Your task to perform on an android device: set an alarm Image 0: 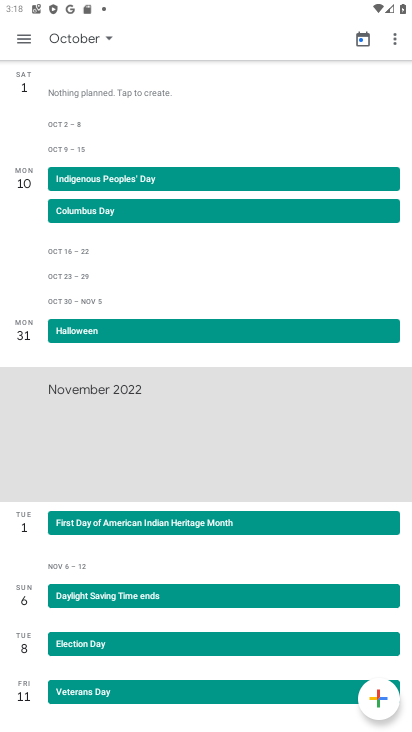
Step 0: press home button
Your task to perform on an android device: set an alarm Image 1: 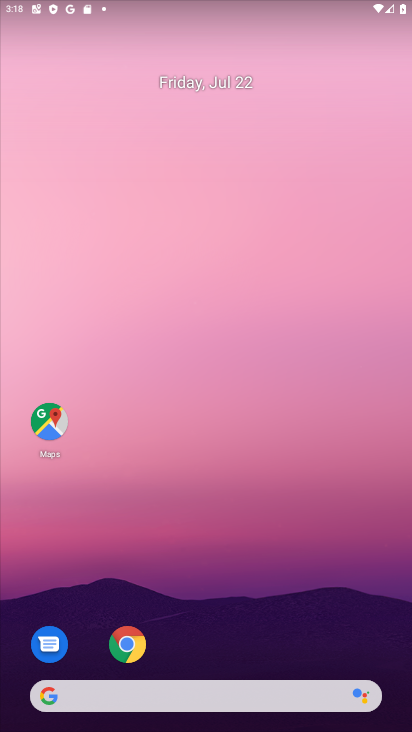
Step 1: drag from (343, 541) to (339, 123)
Your task to perform on an android device: set an alarm Image 2: 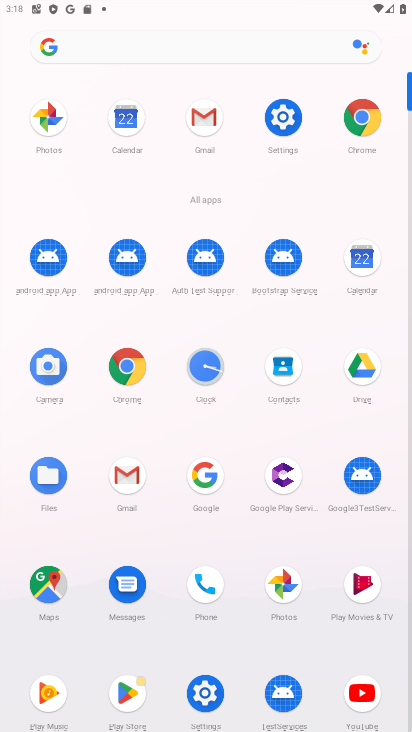
Step 2: click (205, 374)
Your task to perform on an android device: set an alarm Image 3: 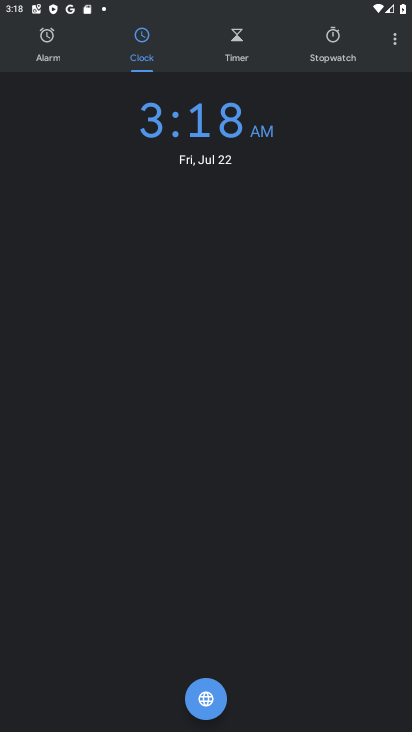
Step 3: click (42, 40)
Your task to perform on an android device: set an alarm Image 4: 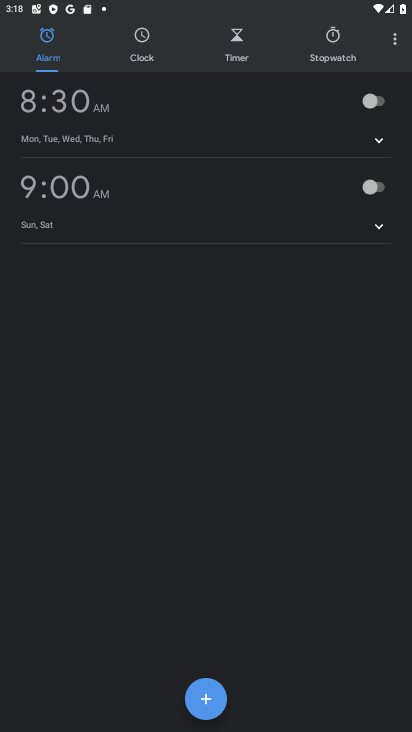
Step 4: click (377, 101)
Your task to perform on an android device: set an alarm Image 5: 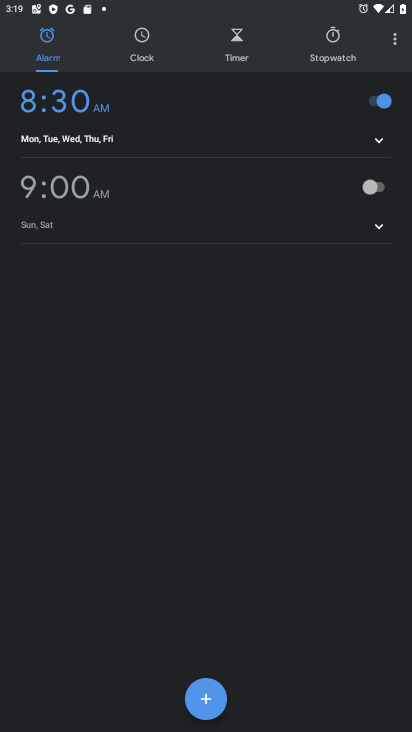
Step 5: task complete